Your task to perform on an android device: Search for asus rog on bestbuy.com, select the first entry, and add it to the cart. Image 0: 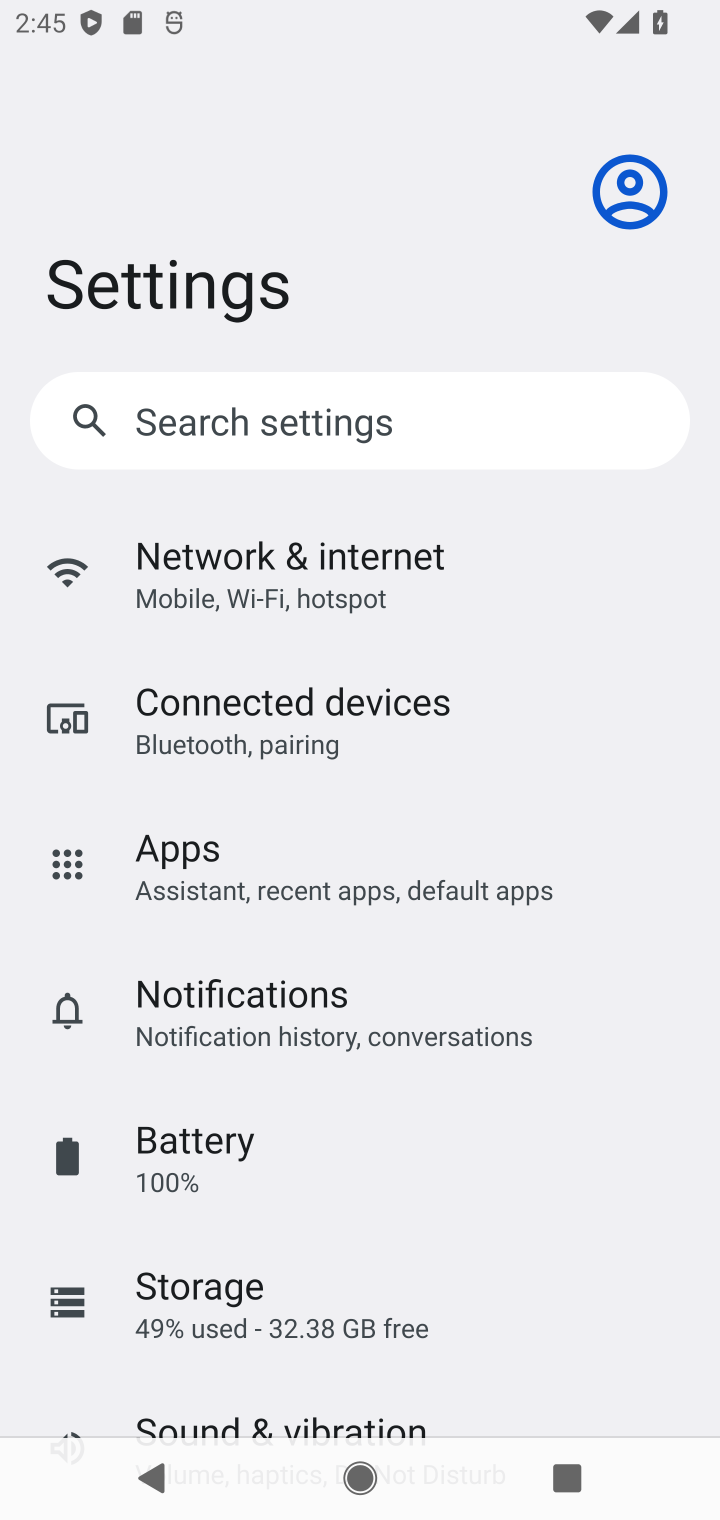
Step 0: press home button
Your task to perform on an android device: Search for asus rog on bestbuy.com, select the first entry, and add it to the cart. Image 1: 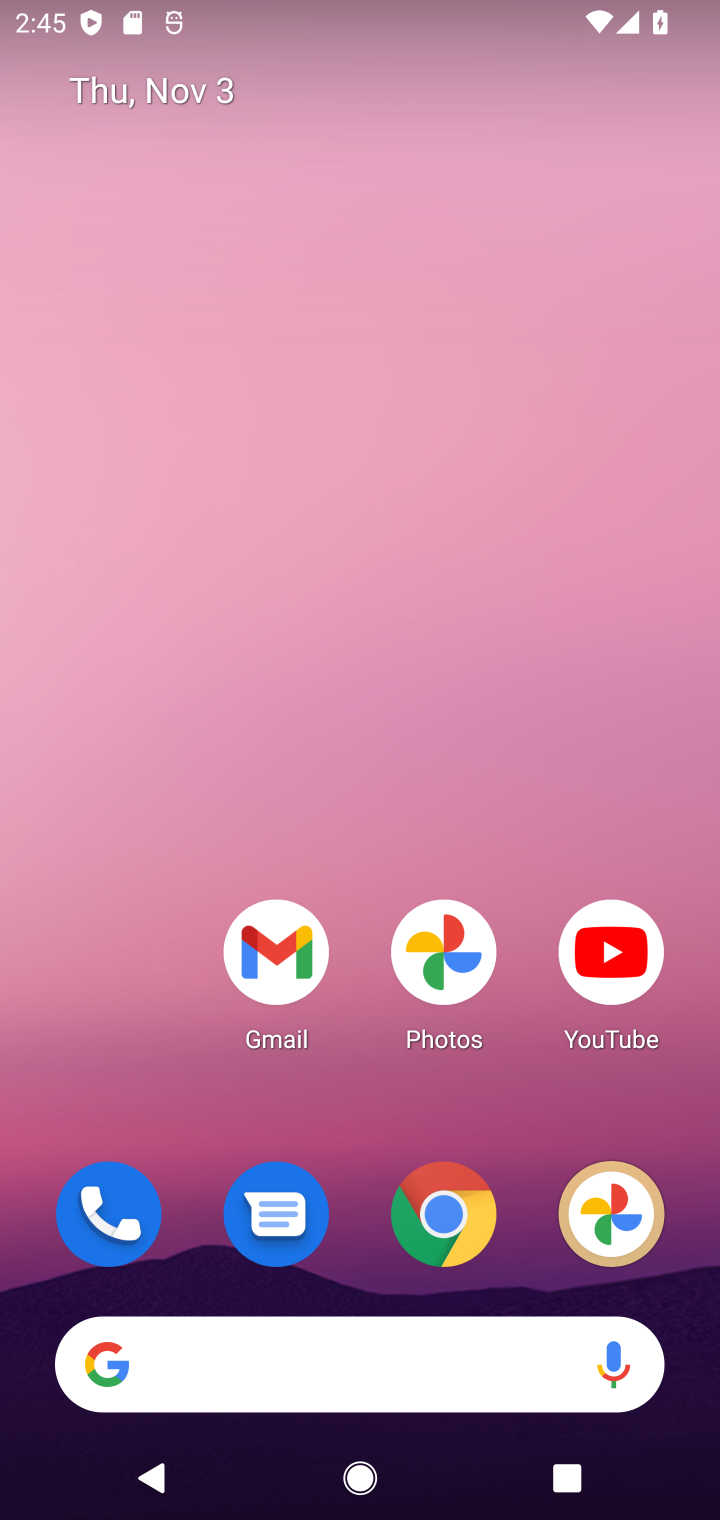
Step 1: click (300, 1362)
Your task to perform on an android device: Search for asus rog on bestbuy.com, select the first entry, and add it to the cart. Image 2: 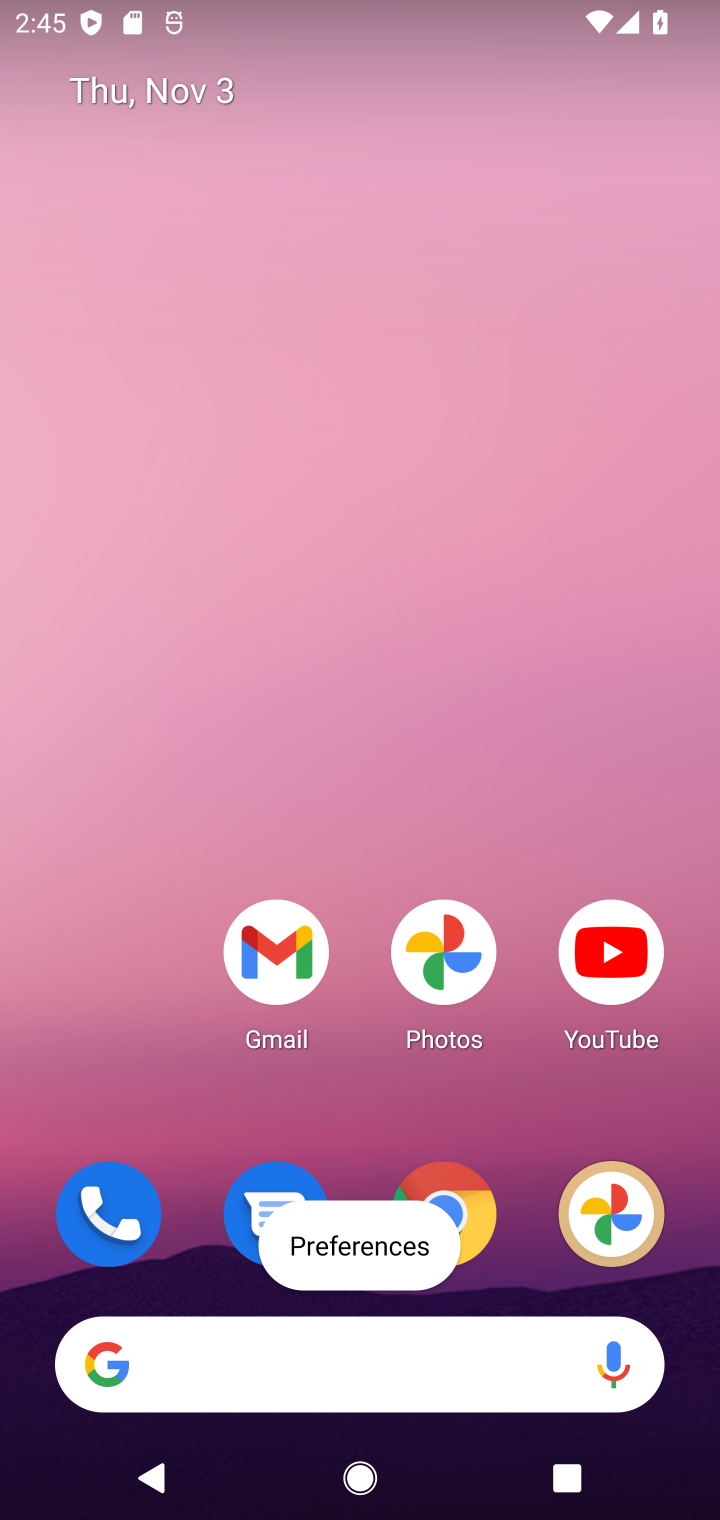
Step 2: click (247, 1354)
Your task to perform on an android device: Search for asus rog on bestbuy.com, select the first entry, and add it to the cart. Image 3: 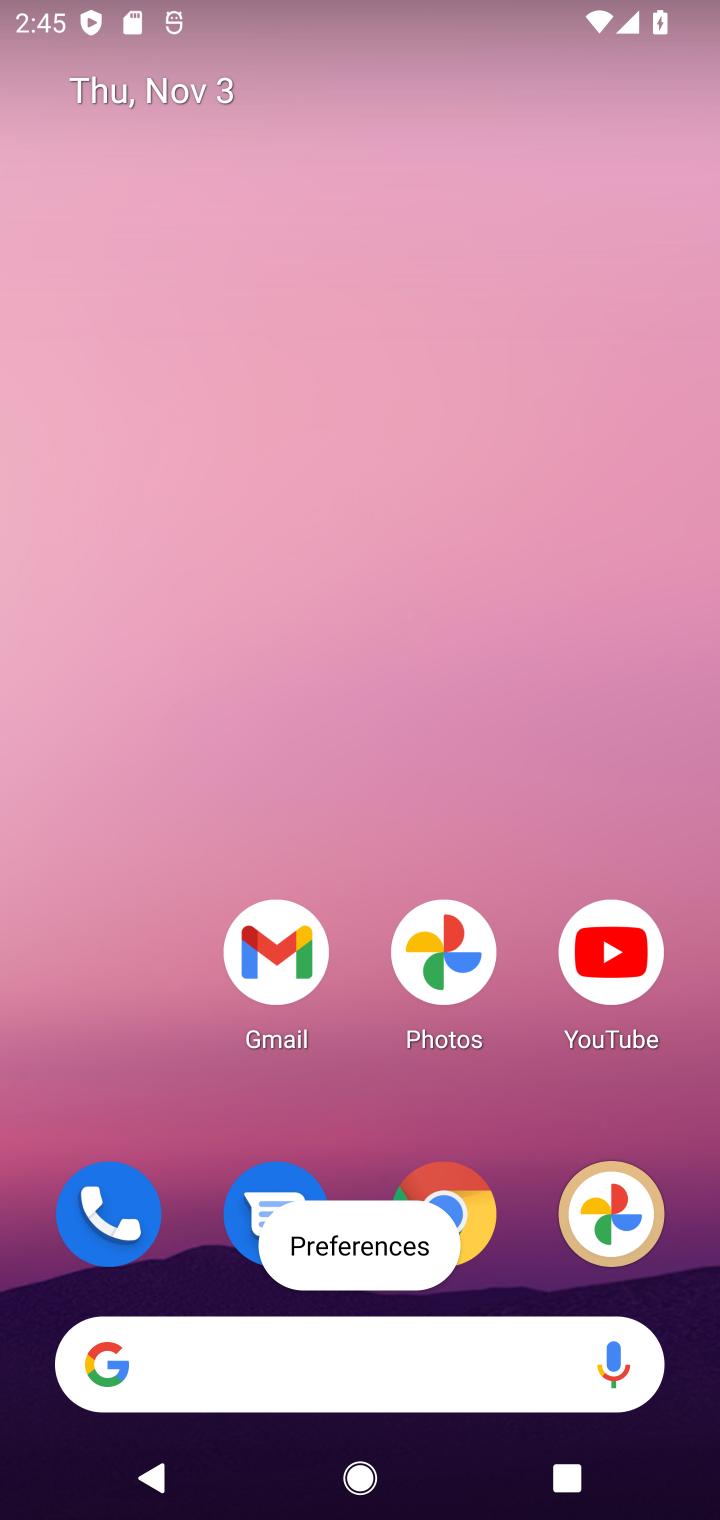
Step 3: click (294, 1380)
Your task to perform on an android device: Search for asus rog on bestbuy.com, select the first entry, and add it to the cart. Image 4: 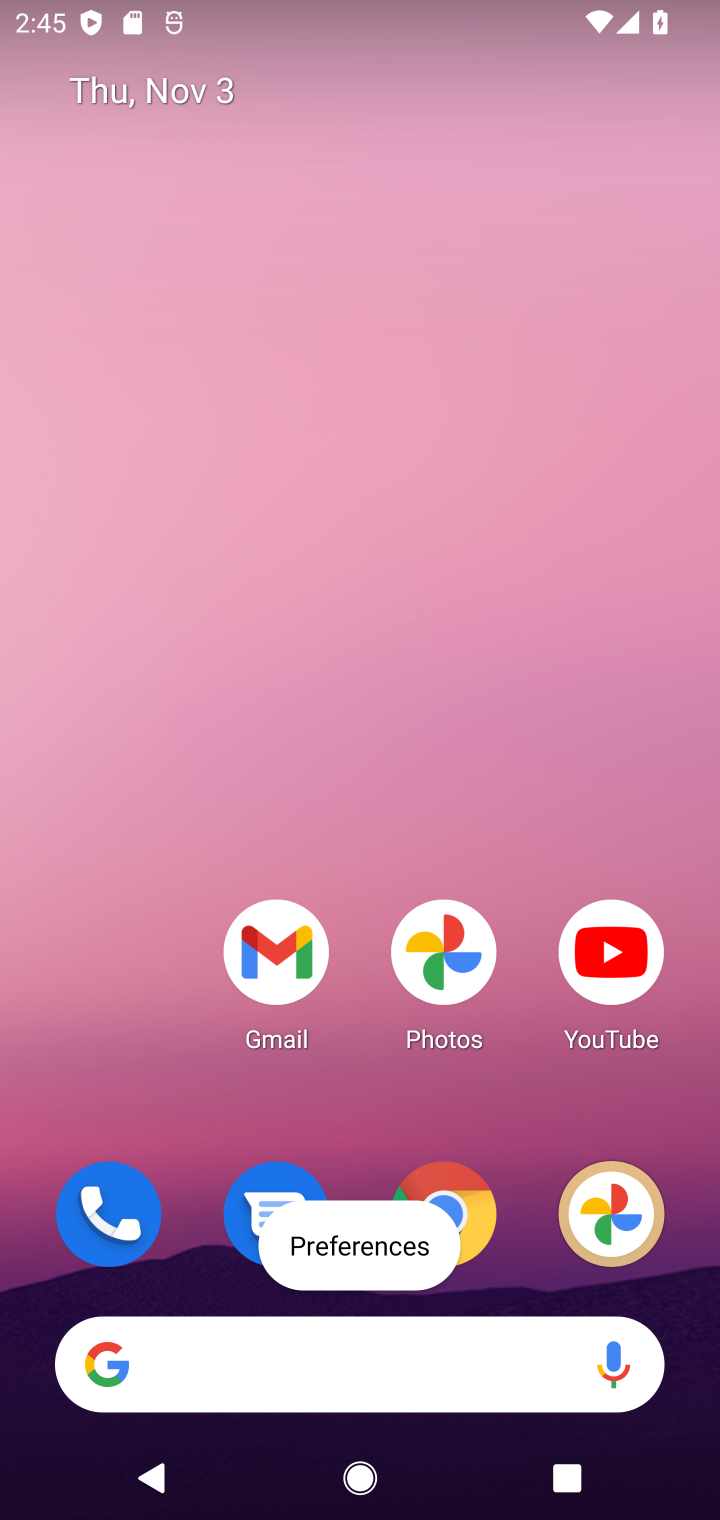
Step 4: drag from (219, 1315) to (247, 1379)
Your task to perform on an android device: Search for asus rog on bestbuy.com, select the first entry, and add it to the cart. Image 5: 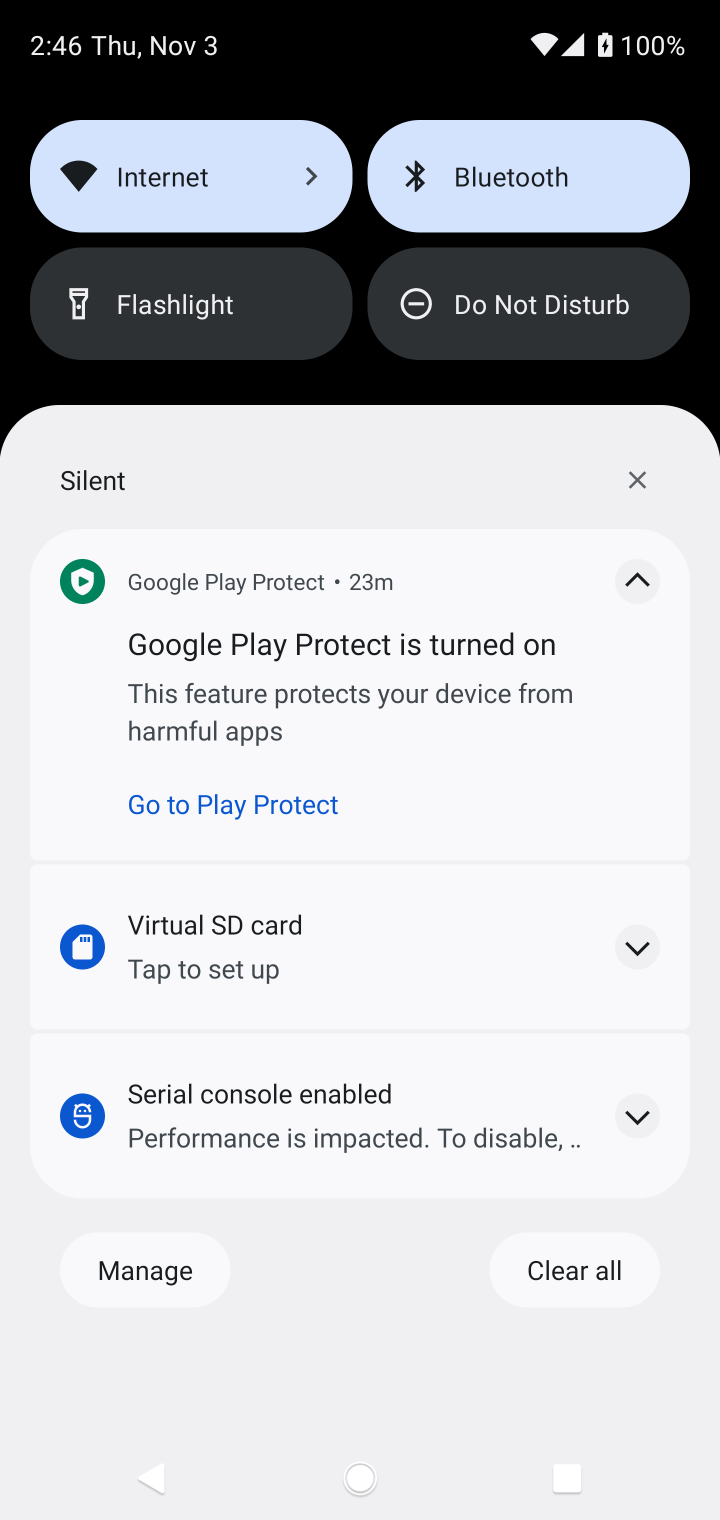
Step 5: click (571, 1287)
Your task to perform on an android device: Search for asus rog on bestbuy.com, select the first entry, and add it to the cart. Image 6: 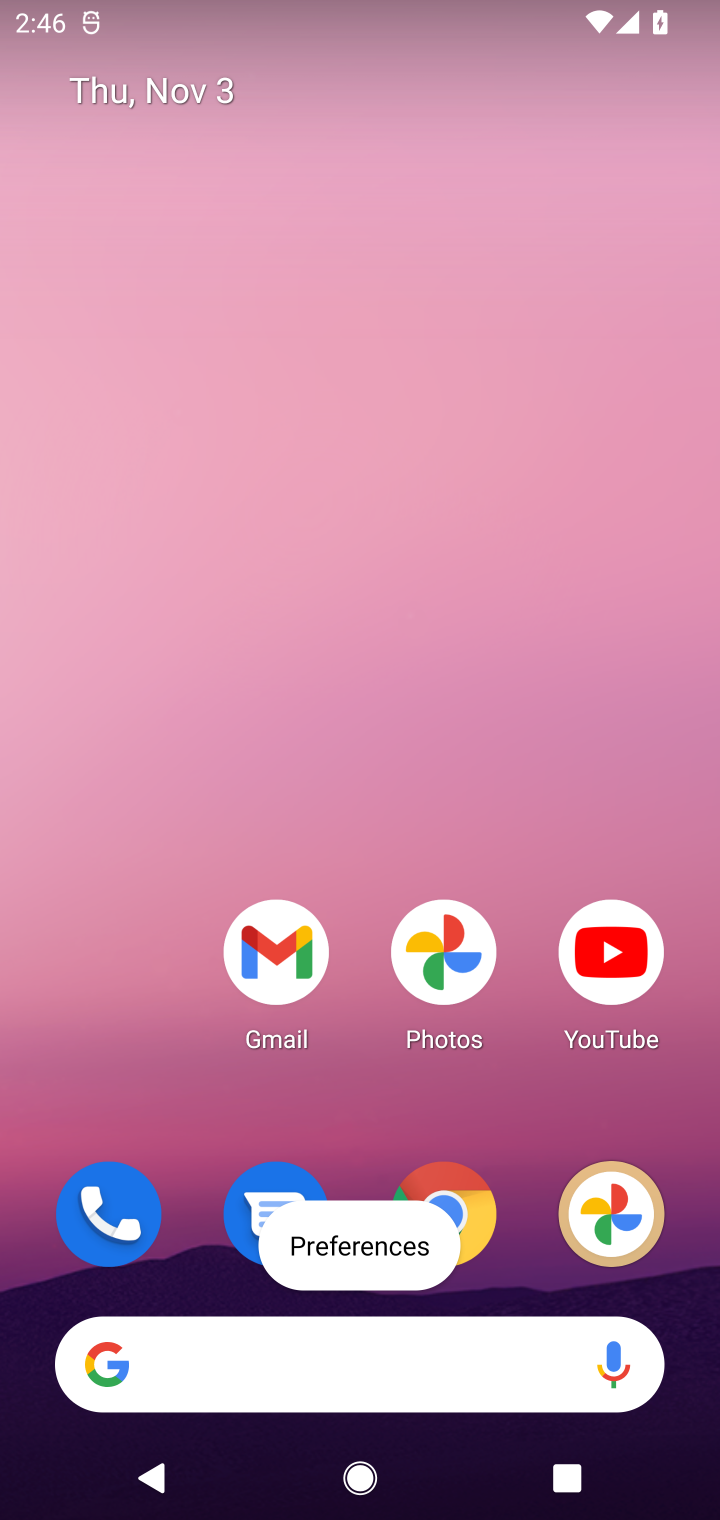
Step 6: click (474, 1354)
Your task to perform on an android device: Search for asus rog on bestbuy.com, select the first entry, and add it to the cart. Image 7: 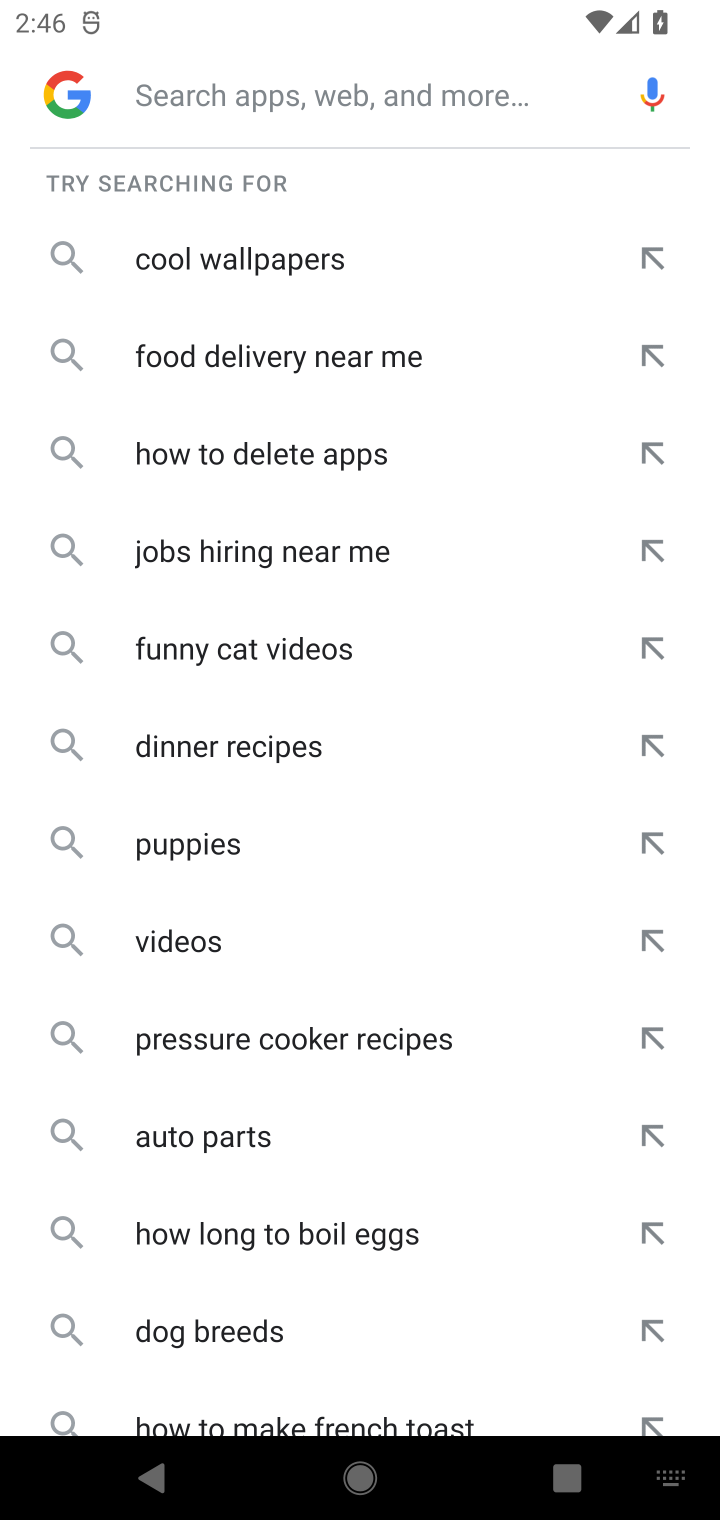
Step 7: type "asus rog"
Your task to perform on an android device: Search for asus rog on bestbuy.com, select the first entry, and add it to the cart. Image 8: 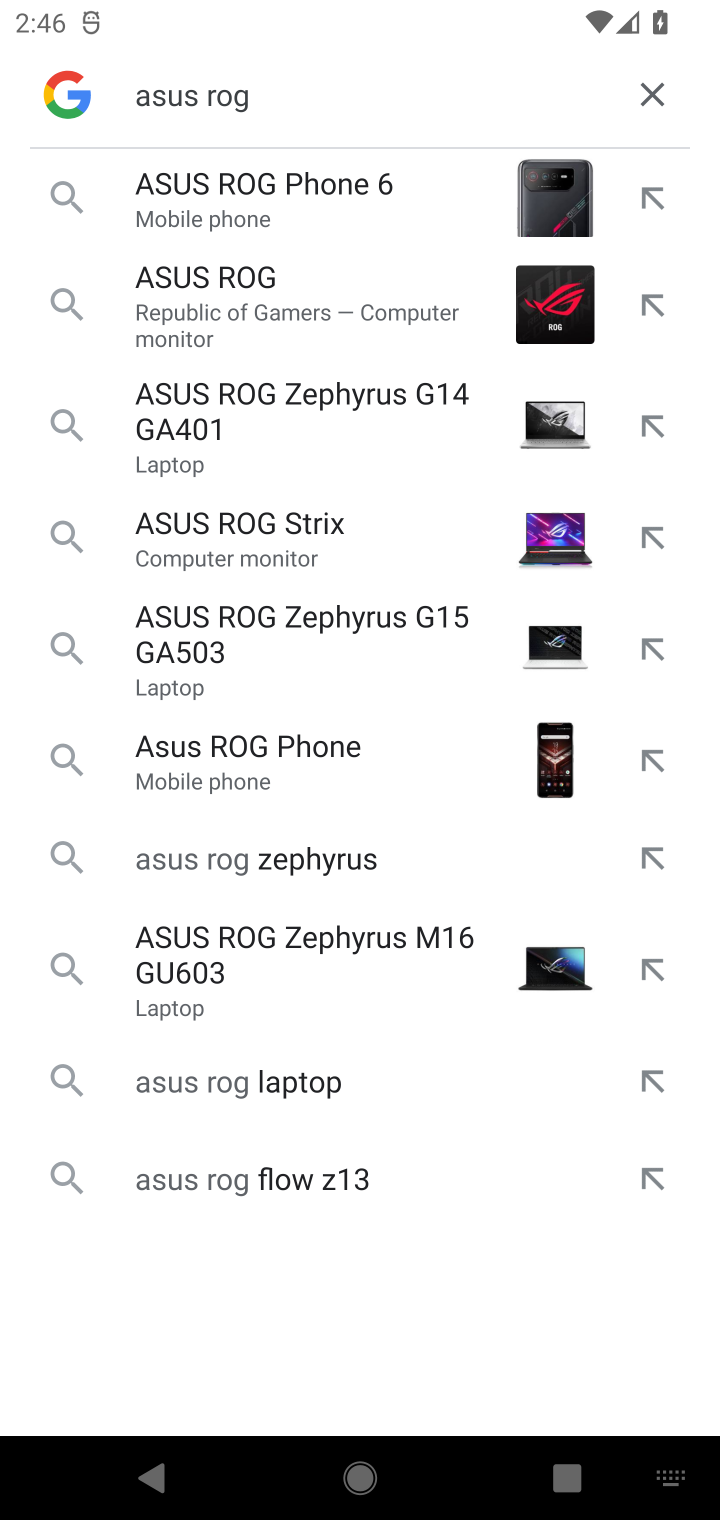
Step 8: press enter
Your task to perform on an android device: Search for asus rog on bestbuy.com, select the first entry, and add it to the cart. Image 9: 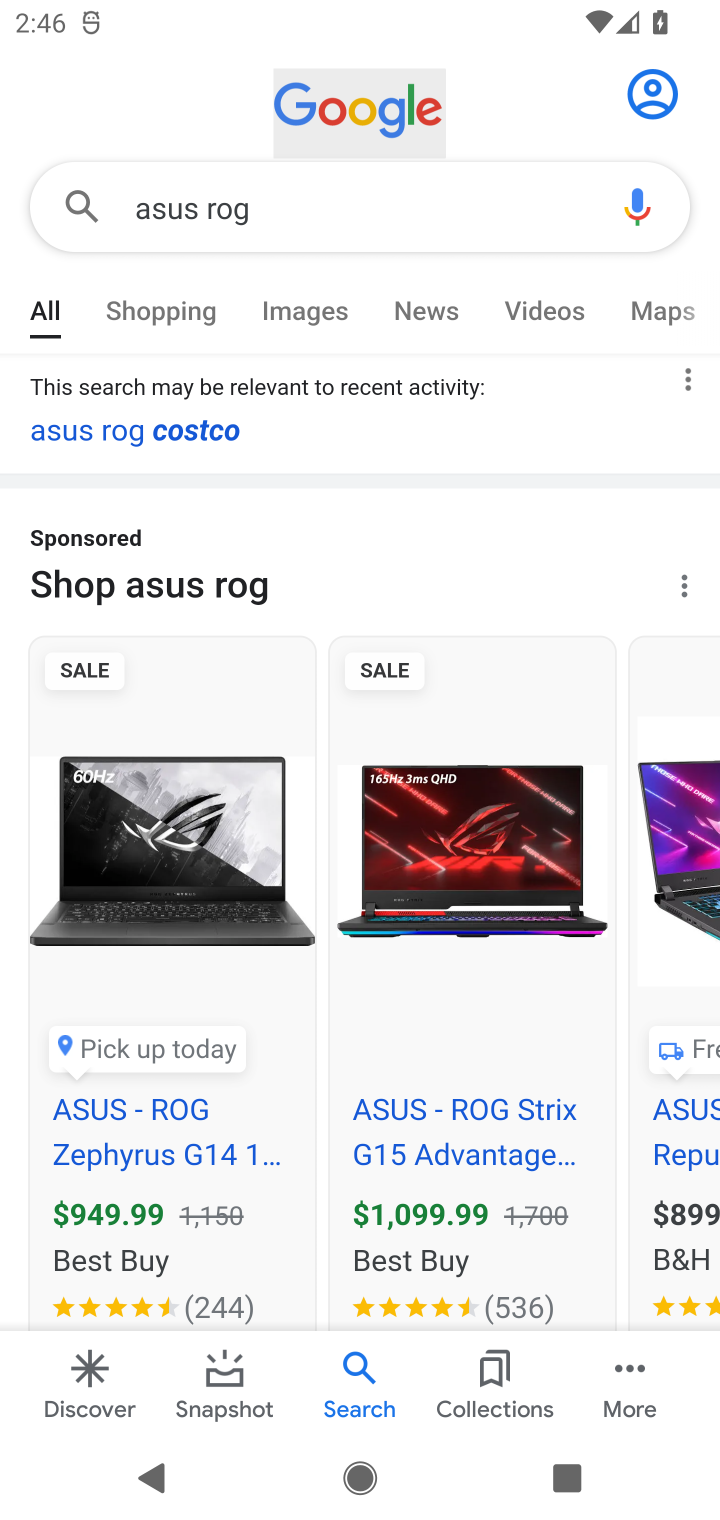
Step 9: drag from (432, 567) to (452, 320)
Your task to perform on an android device: Search for asus rog on bestbuy.com, select the first entry, and add it to the cart. Image 10: 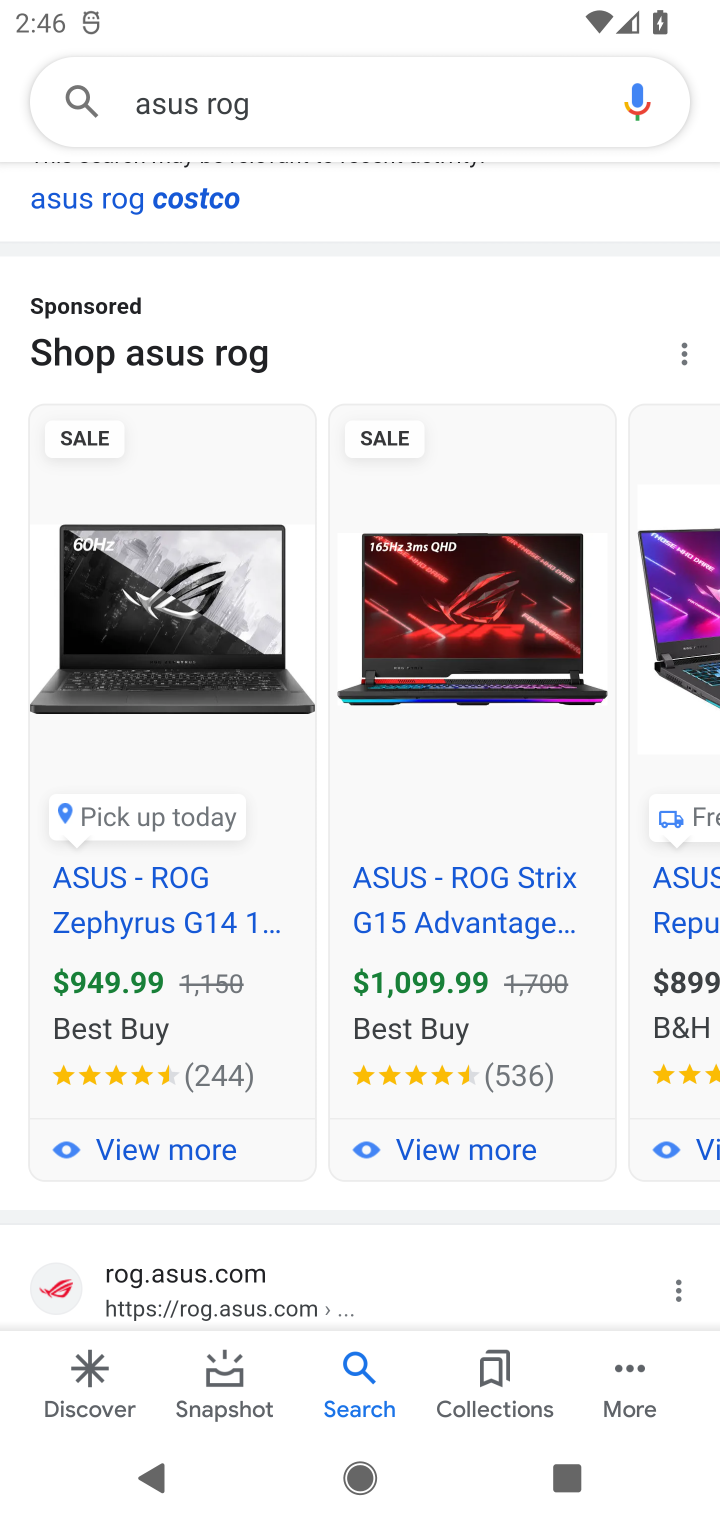
Step 10: drag from (319, 437) to (448, 1409)
Your task to perform on an android device: Search for asus rog on bestbuy.com, select the first entry, and add it to the cart. Image 11: 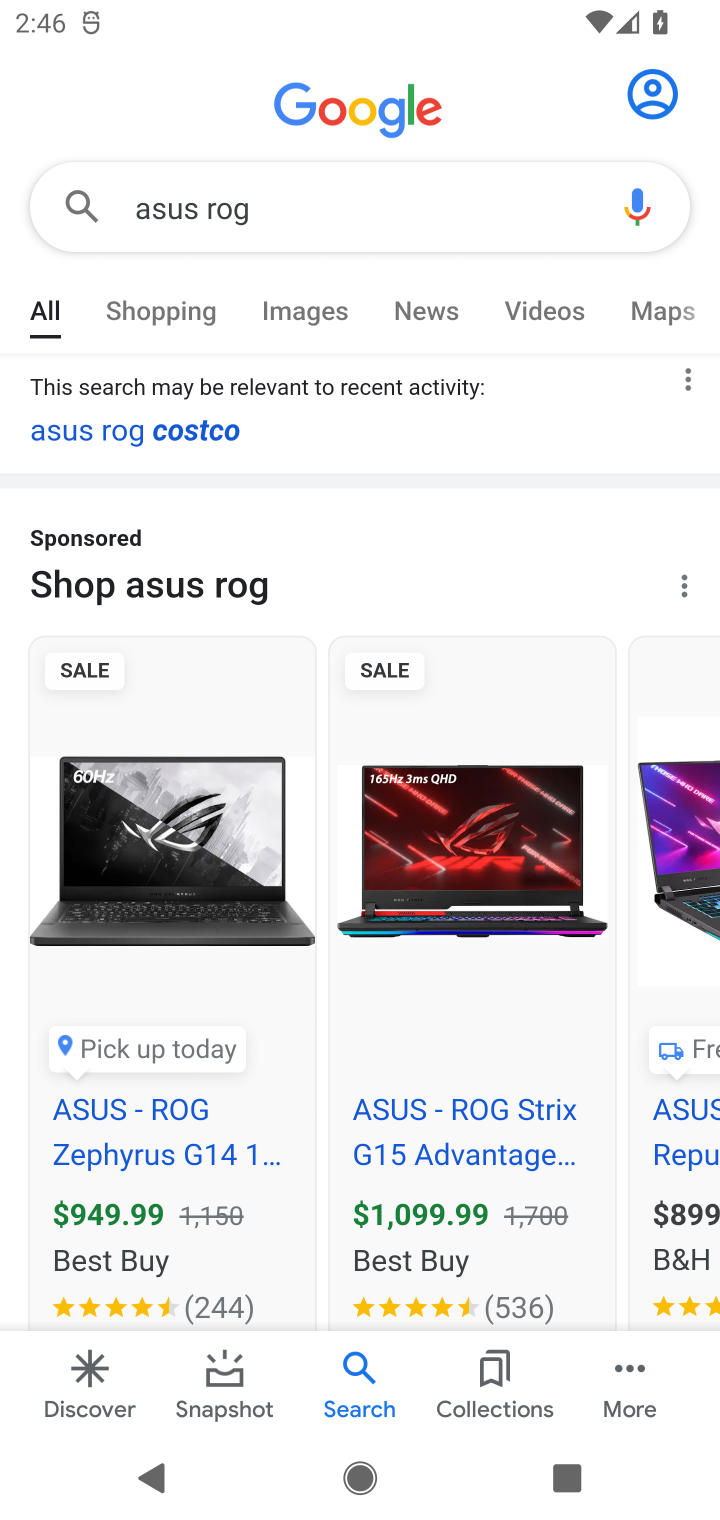
Step 11: click (369, 208)
Your task to perform on an android device: Search for asus rog on bestbuy.com, select the first entry, and add it to the cart. Image 12: 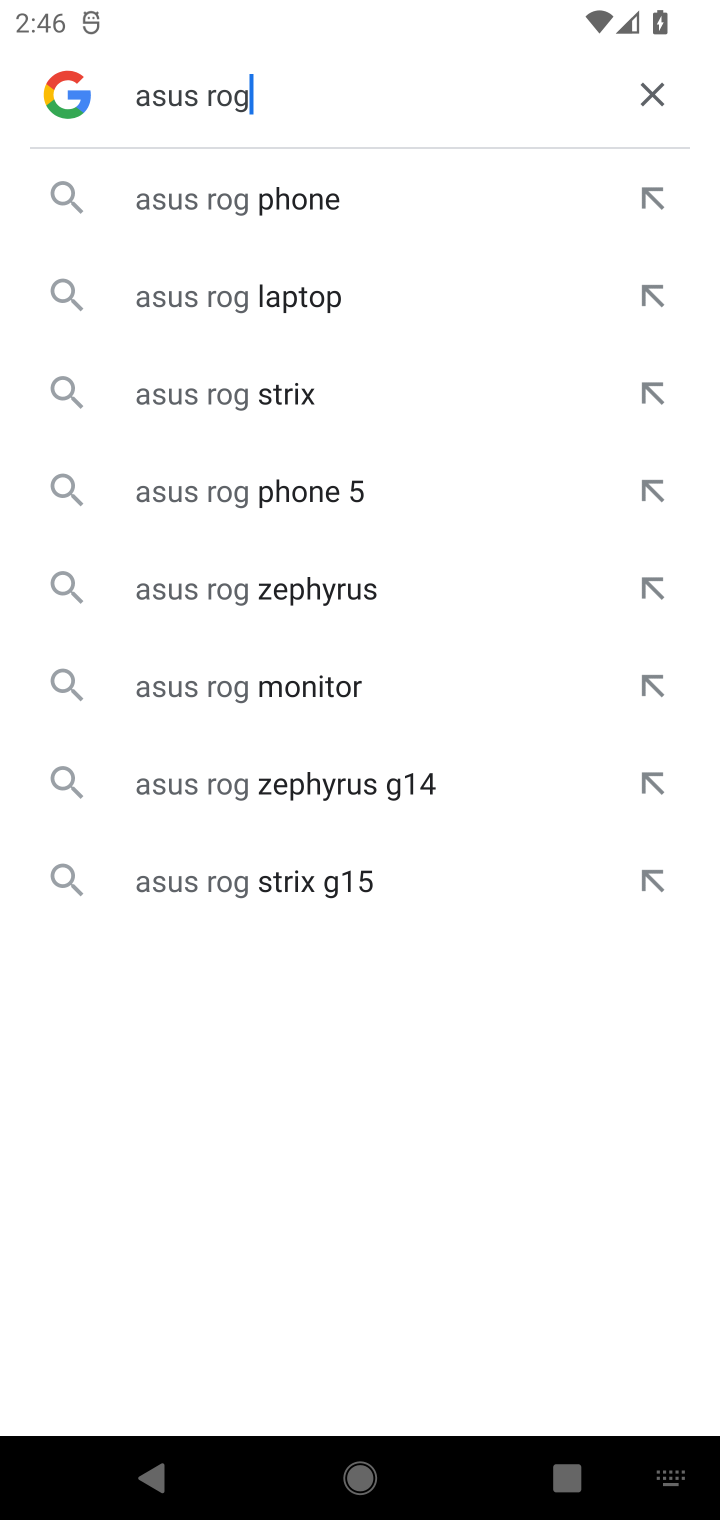
Step 12: click (654, 109)
Your task to perform on an android device: Search for asus rog on bestbuy.com, select the first entry, and add it to the cart. Image 13: 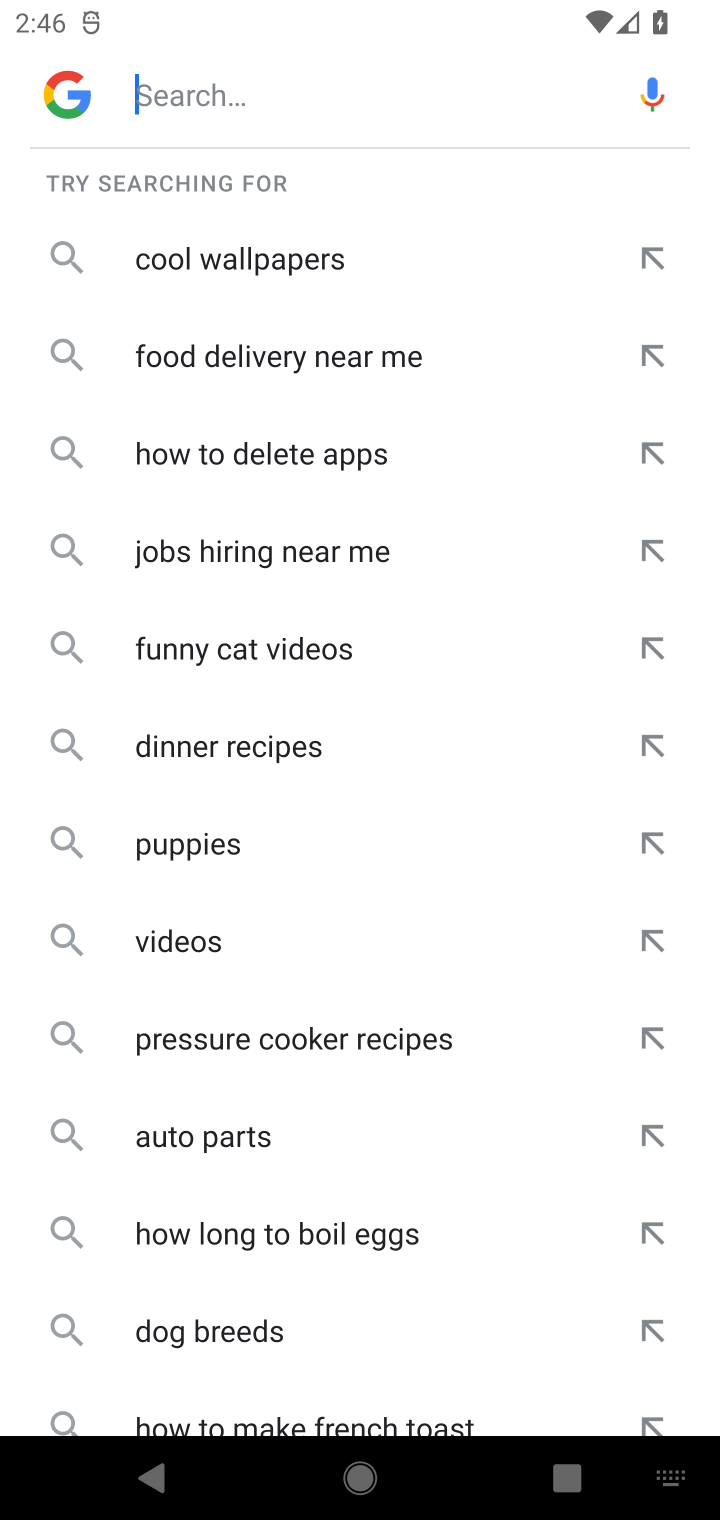
Step 13: type "bestbuy.com"
Your task to perform on an android device: Search for asus rog on bestbuy.com, select the first entry, and add it to the cart. Image 14: 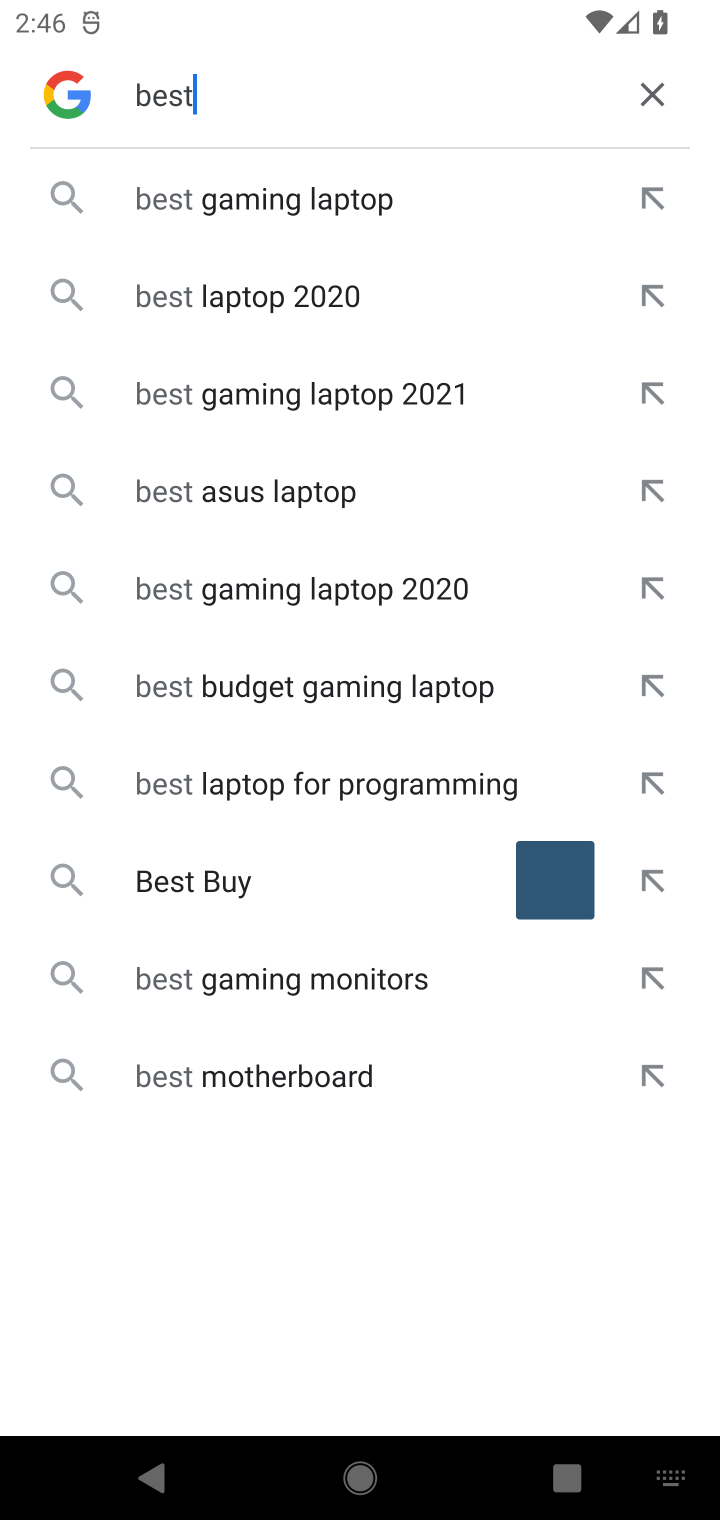
Step 14: press enter
Your task to perform on an android device: Search for asus rog on bestbuy.com, select the first entry, and add it to the cart. Image 15: 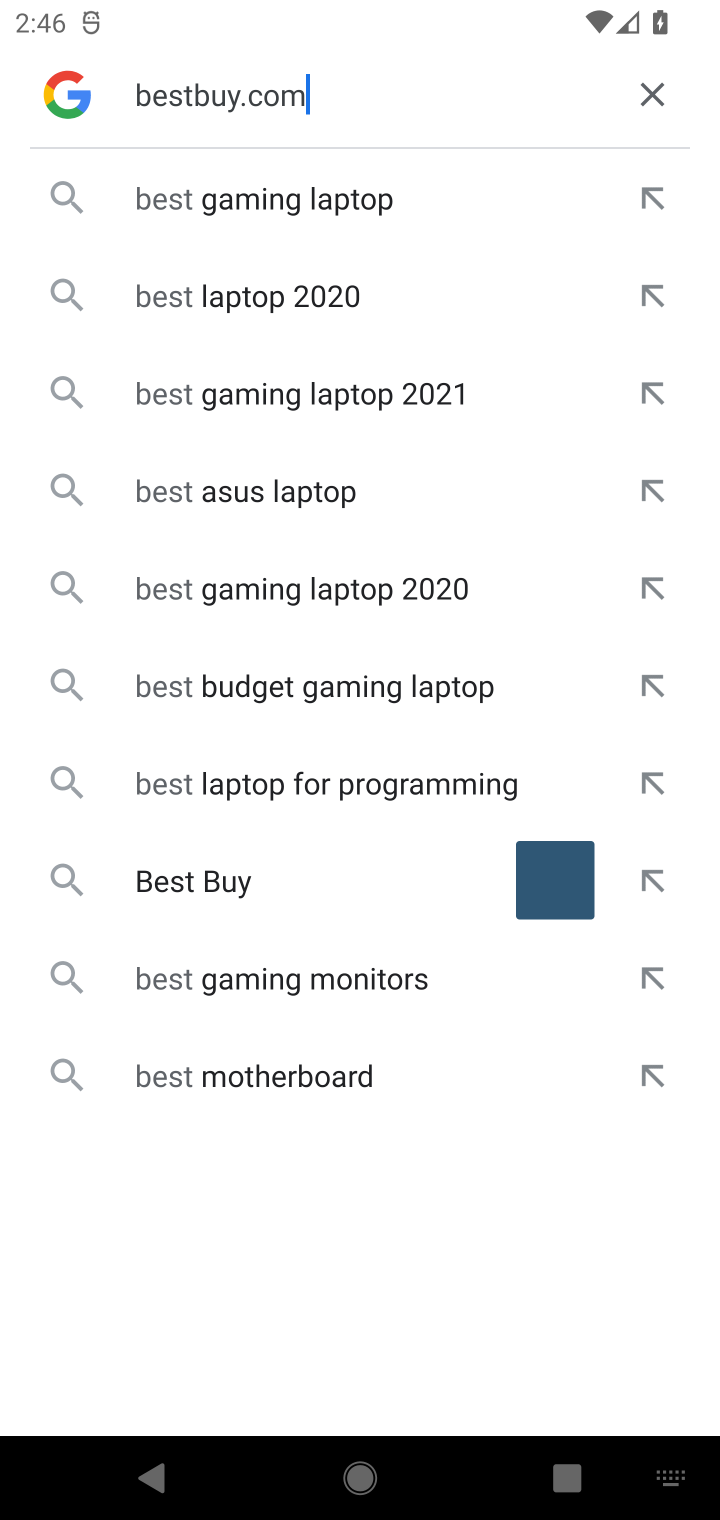
Step 15: type ""
Your task to perform on an android device: Search for asus rog on bestbuy.com, select the first entry, and add it to the cart. Image 16: 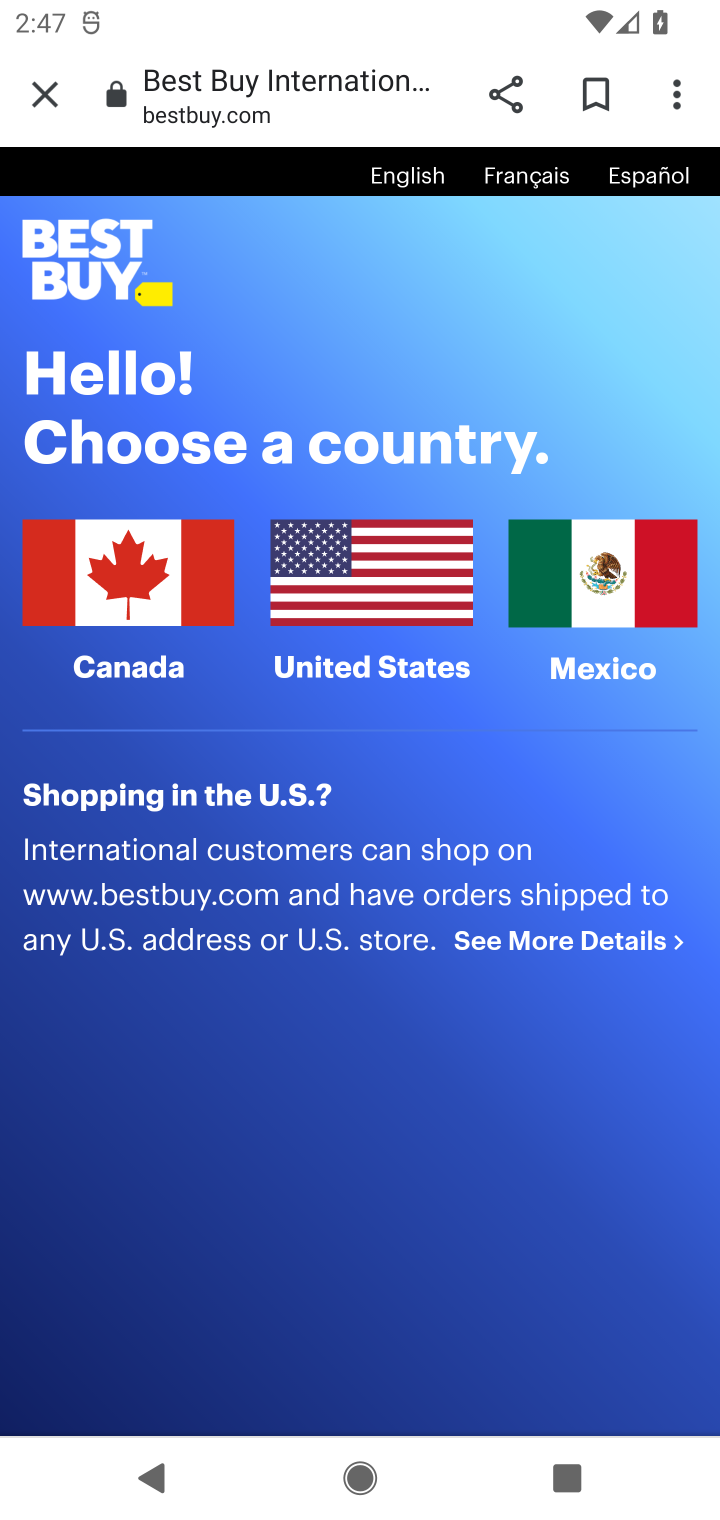
Step 16: click (348, 576)
Your task to perform on an android device: Search for asus rog on bestbuy.com, select the first entry, and add it to the cart. Image 17: 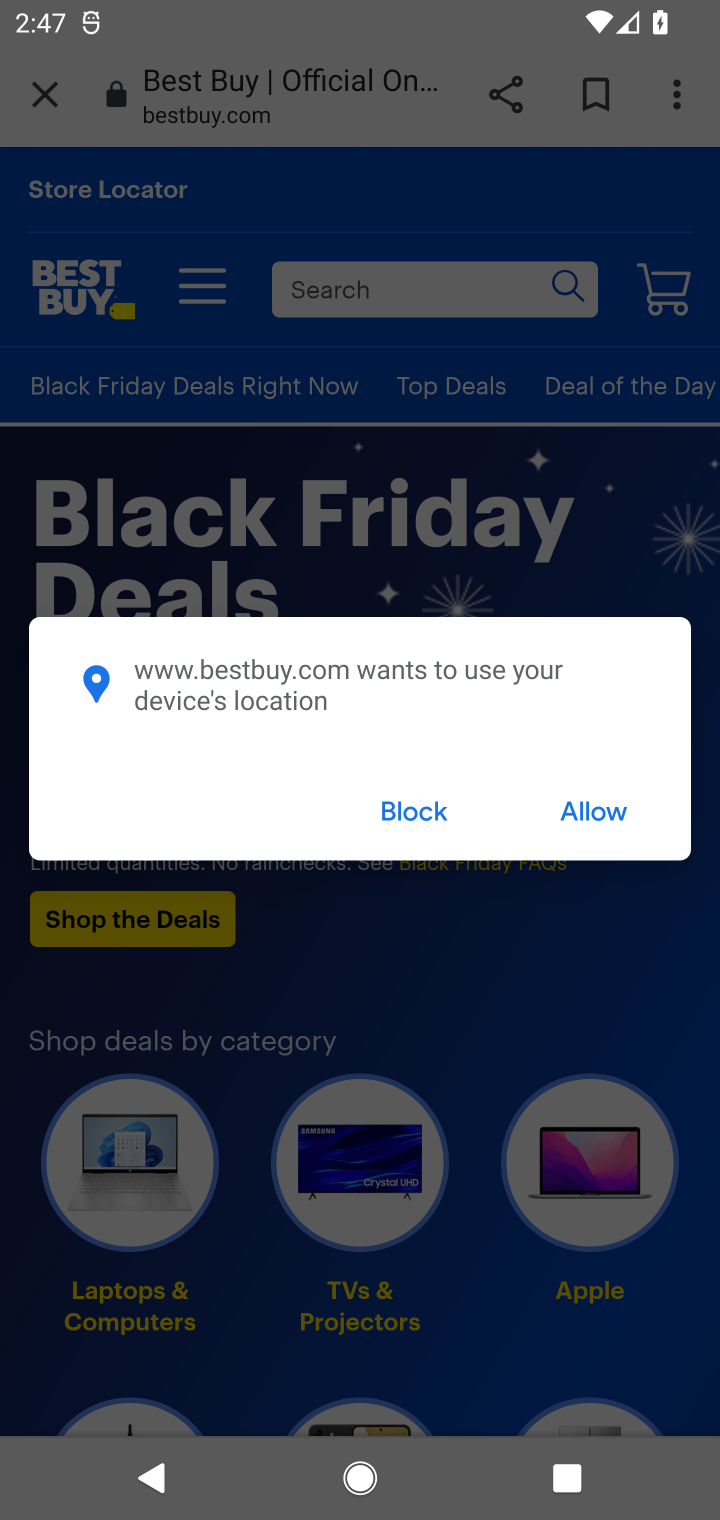
Step 17: click (410, 792)
Your task to perform on an android device: Search for asus rog on bestbuy.com, select the first entry, and add it to the cart. Image 18: 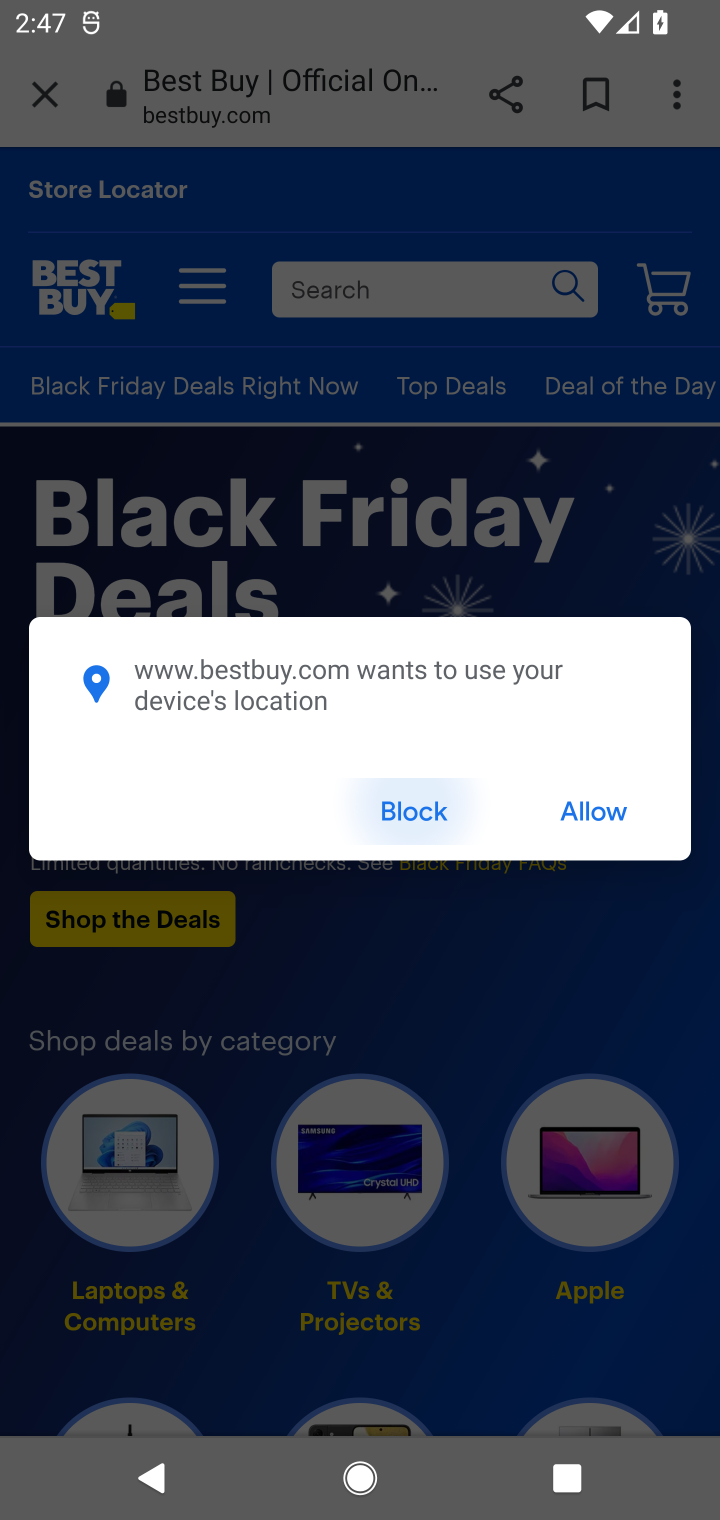
Step 18: click (410, 797)
Your task to perform on an android device: Search for asus rog on bestbuy.com, select the first entry, and add it to the cart. Image 19: 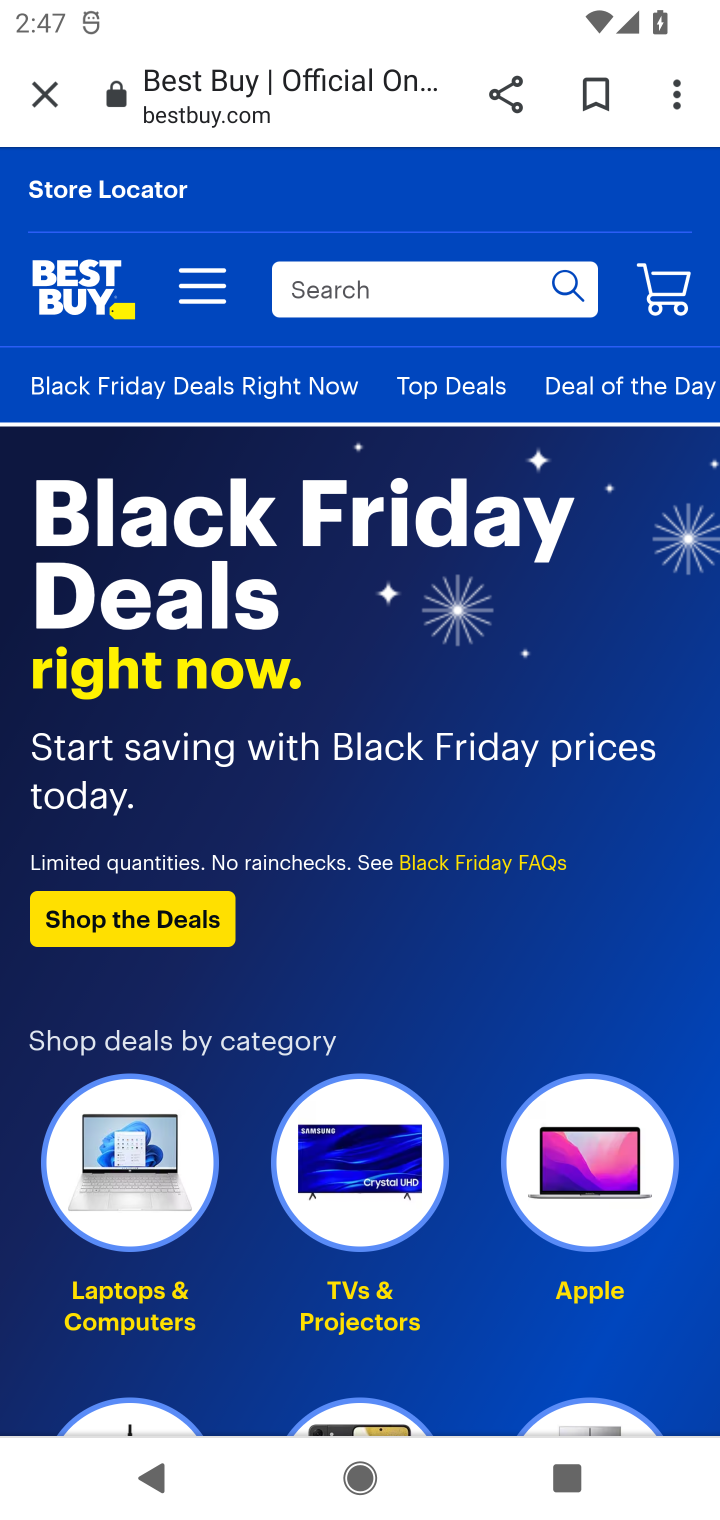
Step 19: task complete